Your task to perform on an android device: Go to Maps Image 0: 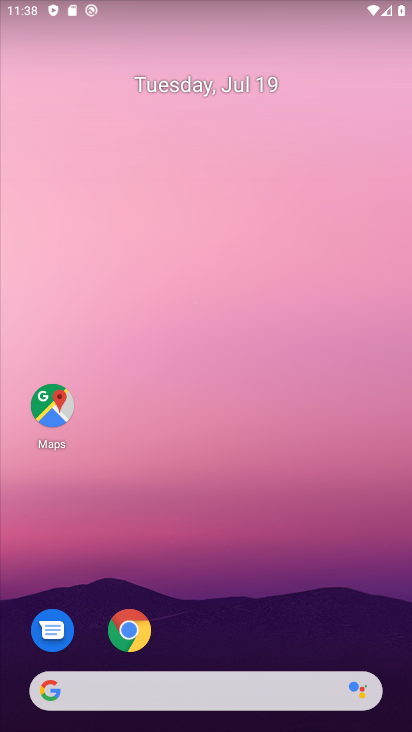
Step 0: drag from (208, 710) to (293, 141)
Your task to perform on an android device: Go to Maps Image 1: 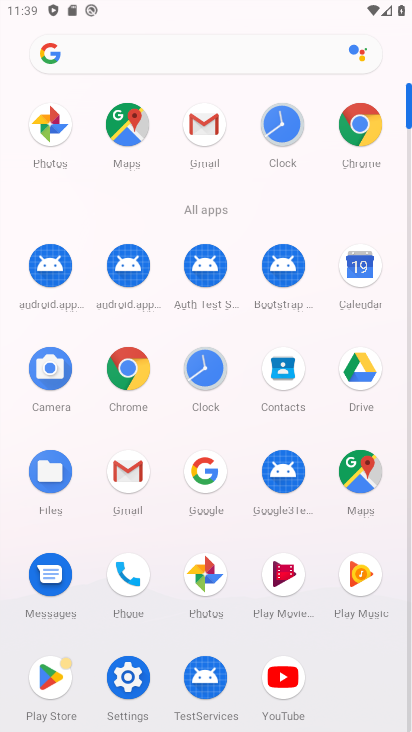
Step 1: click (353, 485)
Your task to perform on an android device: Go to Maps Image 2: 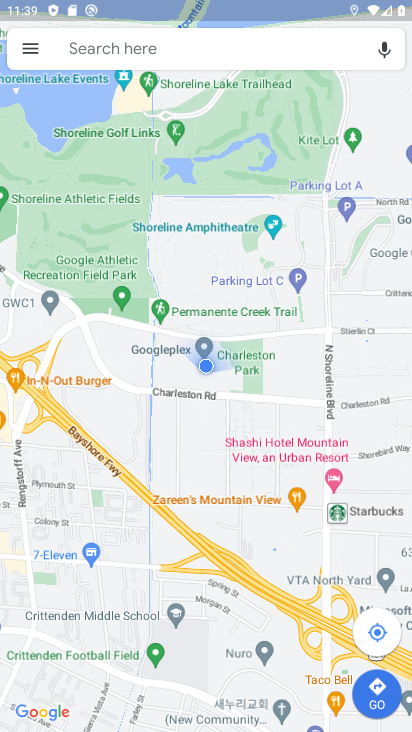
Step 2: task complete